Your task to perform on an android device: toggle pop-ups in chrome Image 0: 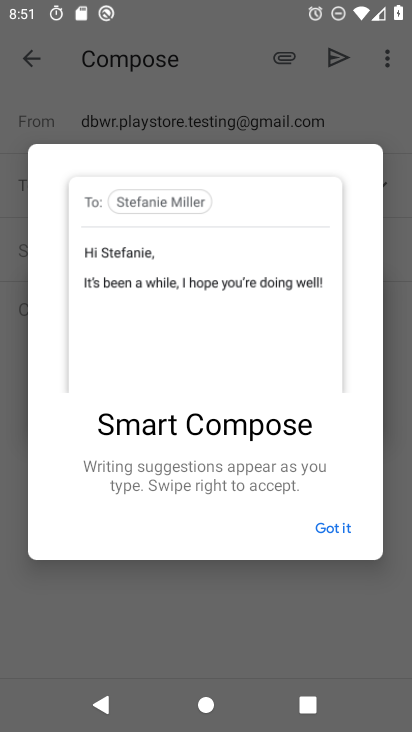
Step 0: press home button
Your task to perform on an android device: toggle pop-ups in chrome Image 1: 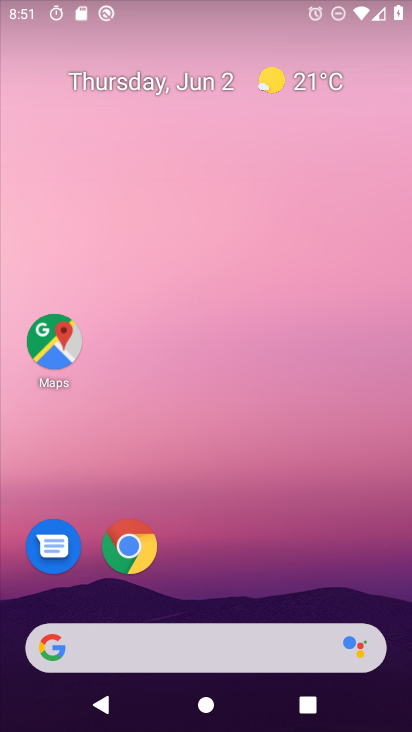
Step 1: drag from (330, 550) to (320, 177)
Your task to perform on an android device: toggle pop-ups in chrome Image 2: 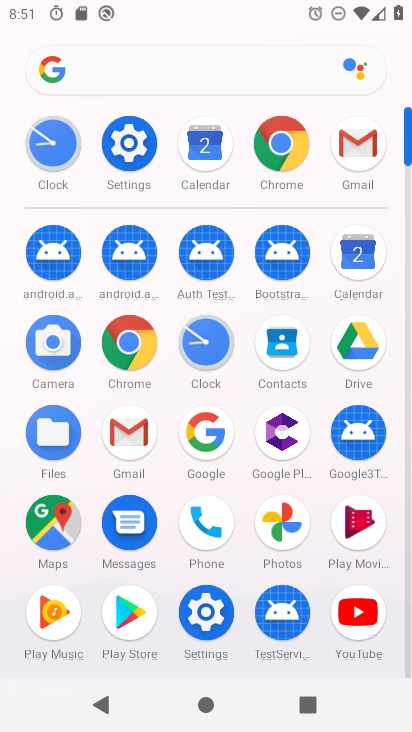
Step 2: click (105, 361)
Your task to perform on an android device: toggle pop-ups in chrome Image 3: 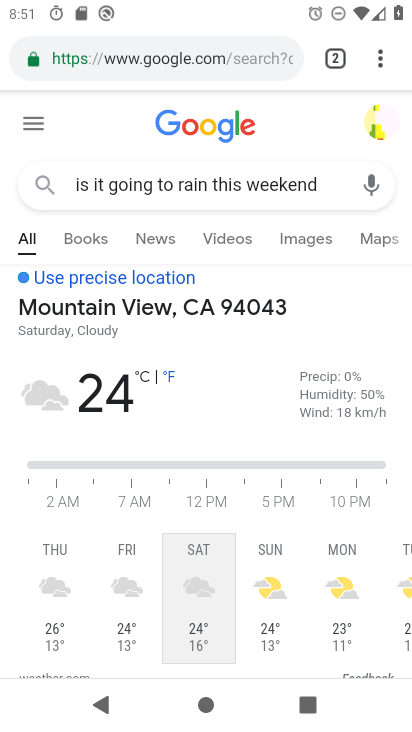
Step 3: drag from (385, 67) to (202, 581)
Your task to perform on an android device: toggle pop-ups in chrome Image 4: 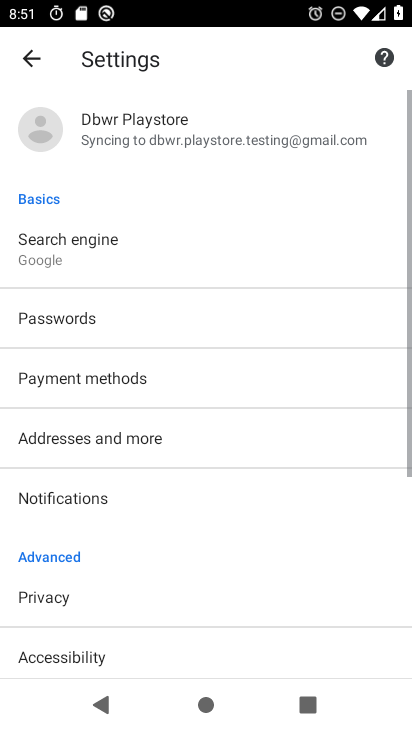
Step 4: drag from (159, 648) to (163, 343)
Your task to perform on an android device: toggle pop-ups in chrome Image 5: 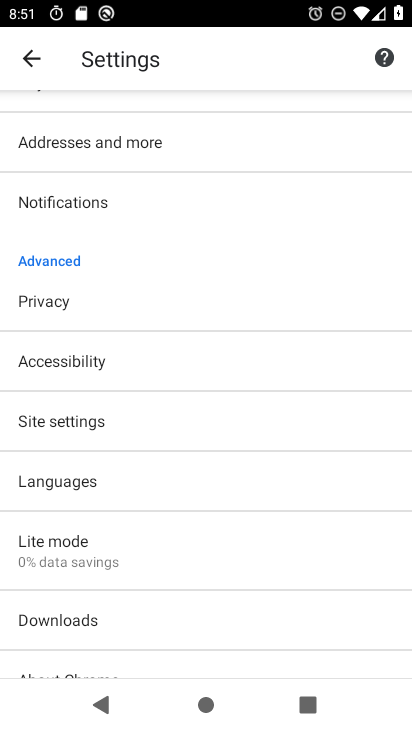
Step 5: click (121, 414)
Your task to perform on an android device: toggle pop-ups in chrome Image 6: 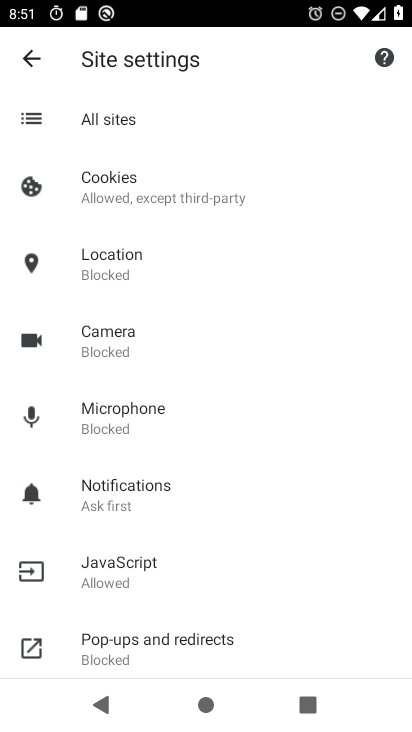
Step 6: task complete